Your task to perform on an android device: empty trash in google photos Image 0: 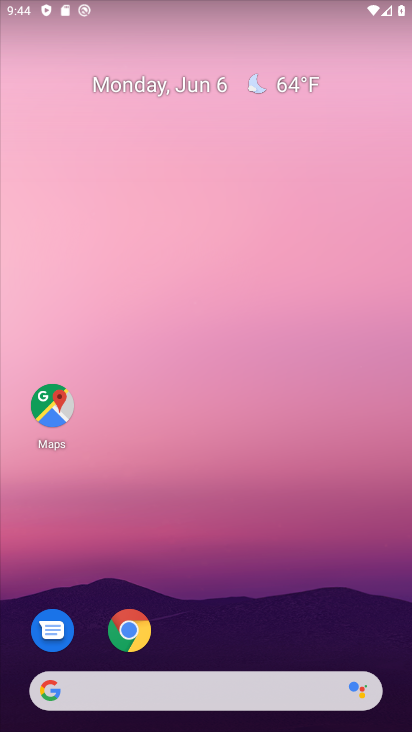
Step 0: drag from (108, 524) to (117, 1)
Your task to perform on an android device: empty trash in google photos Image 1: 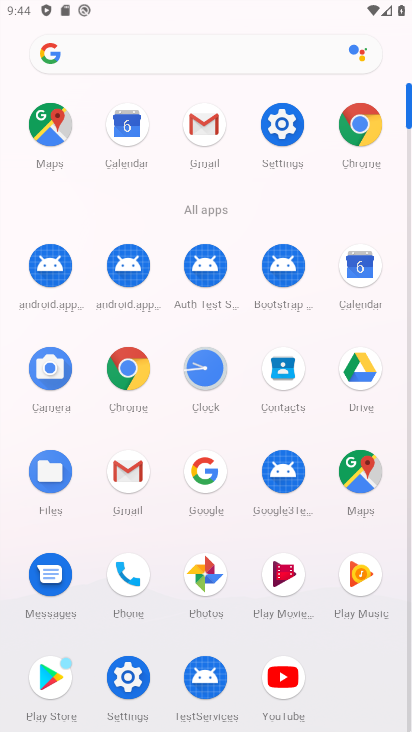
Step 1: click (208, 576)
Your task to perform on an android device: empty trash in google photos Image 2: 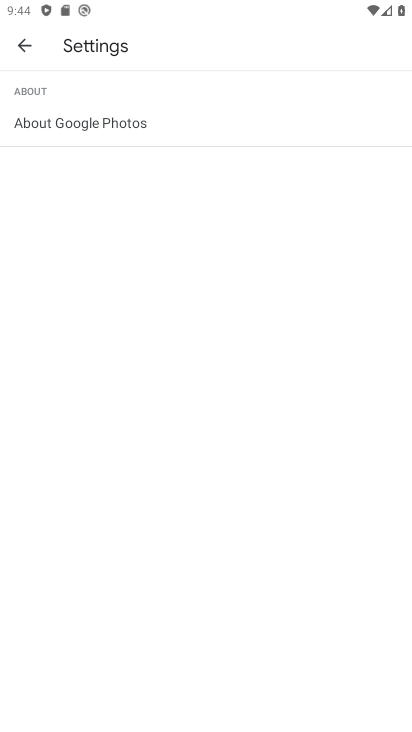
Step 2: click (19, 48)
Your task to perform on an android device: empty trash in google photos Image 3: 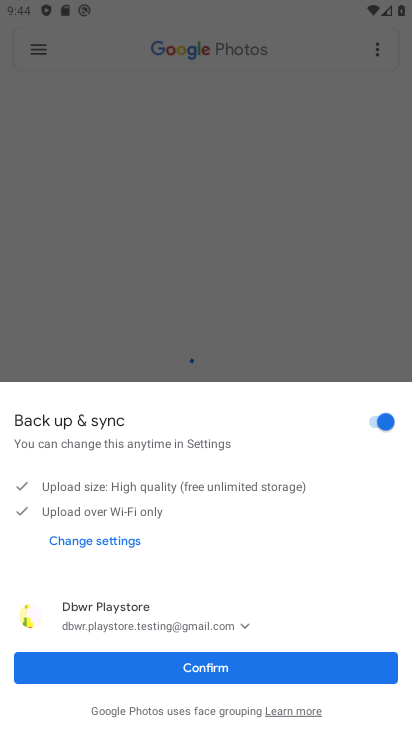
Step 3: click (221, 684)
Your task to perform on an android device: empty trash in google photos Image 4: 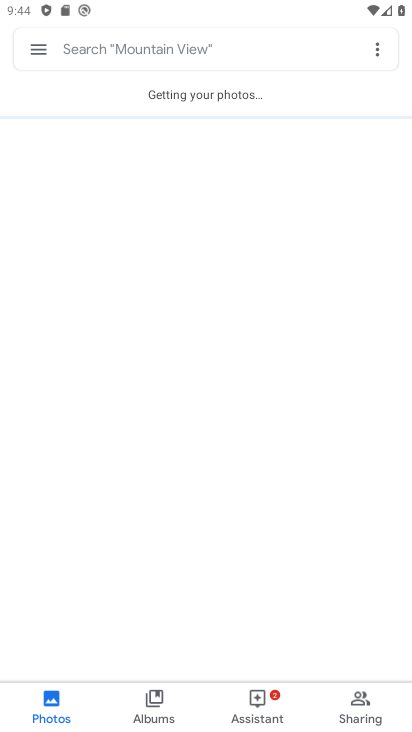
Step 4: click (37, 56)
Your task to perform on an android device: empty trash in google photos Image 5: 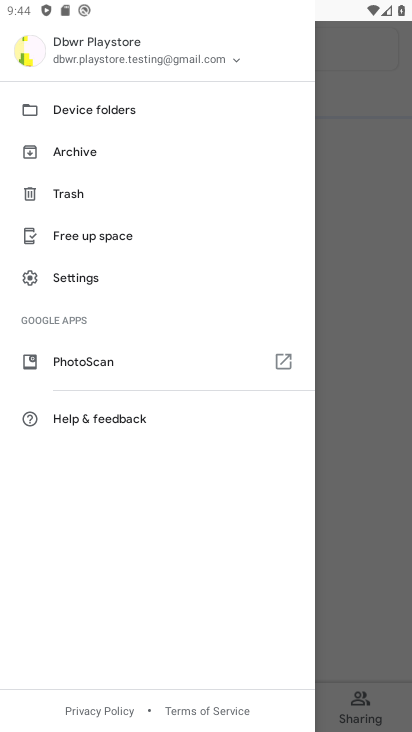
Step 5: click (74, 199)
Your task to perform on an android device: empty trash in google photos Image 6: 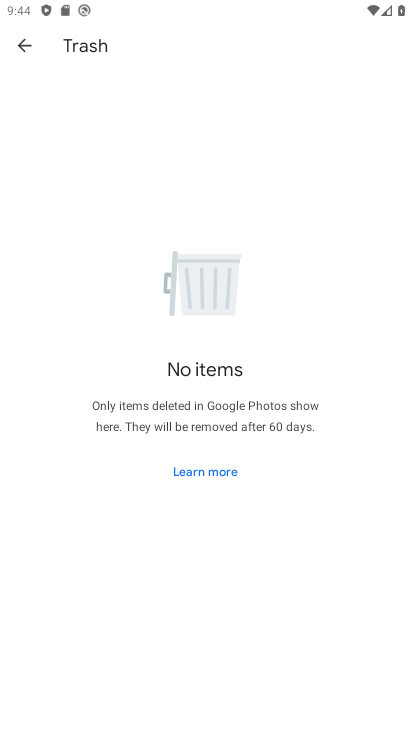
Step 6: task complete